Your task to perform on an android device: find snoozed emails in the gmail app Image 0: 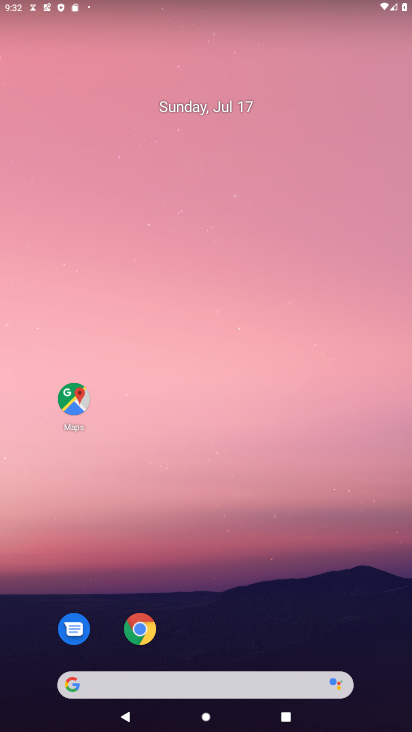
Step 0: drag from (253, 683) to (253, 98)
Your task to perform on an android device: find snoozed emails in the gmail app Image 1: 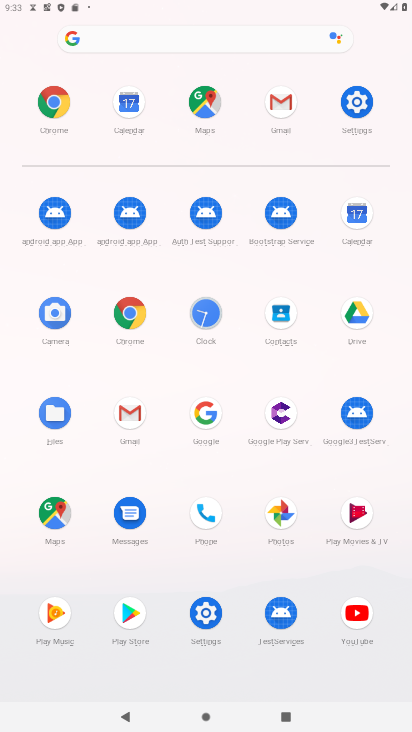
Step 1: click (130, 417)
Your task to perform on an android device: find snoozed emails in the gmail app Image 2: 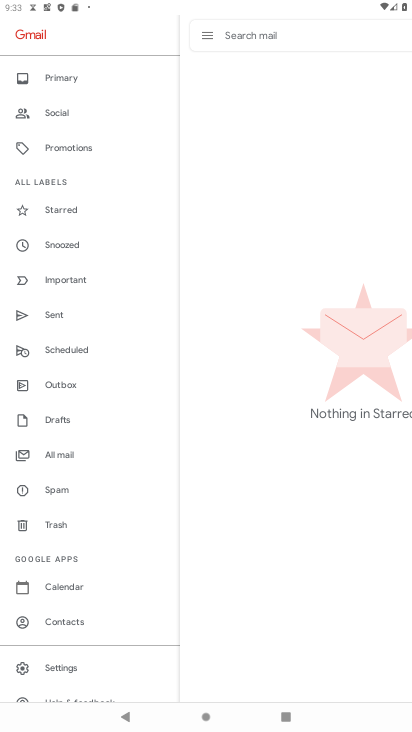
Step 2: click (62, 243)
Your task to perform on an android device: find snoozed emails in the gmail app Image 3: 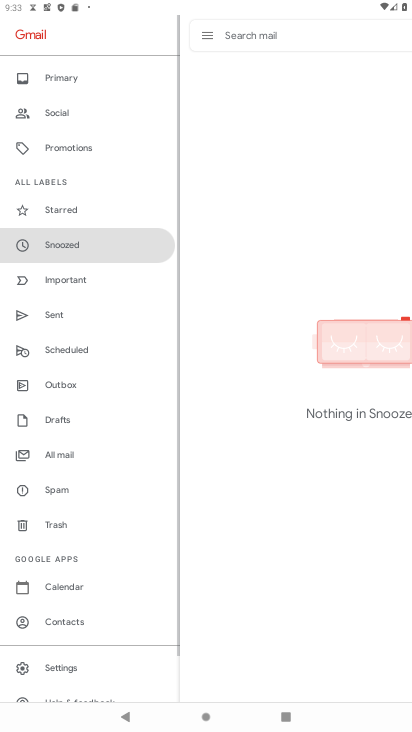
Step 3: task complete